Your task to perform on an android device: Go to Amazon Image 0: 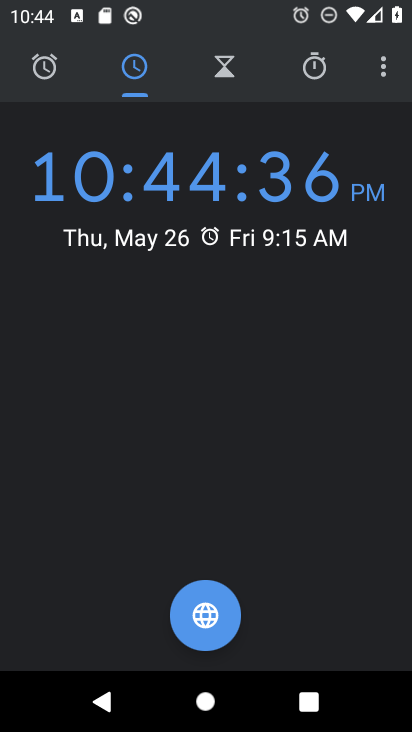
Step 0: press home button
Your task to perform on an android device: Go to Amazon Image 1: 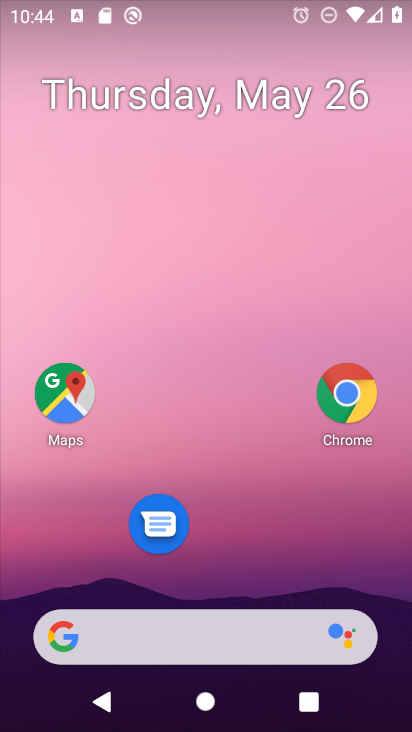
Step 1: click (350, 401)
Your task to perform on an android device: Go to Amazon Image 2: 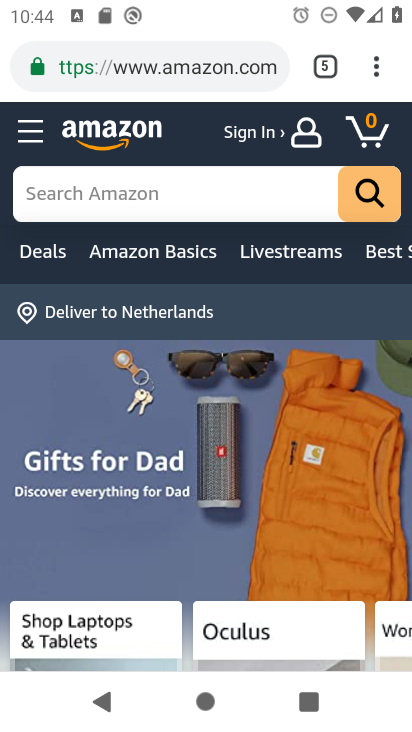
Step 2: task complete